Your task to perform on an android device: open chrome privacy settings Image 0: 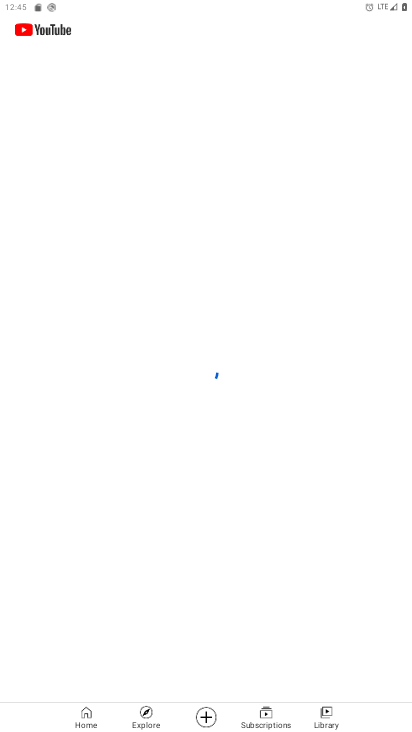
Step 0: press home button
Your task to perform on an android device: open chrome privacy settings Image 1: 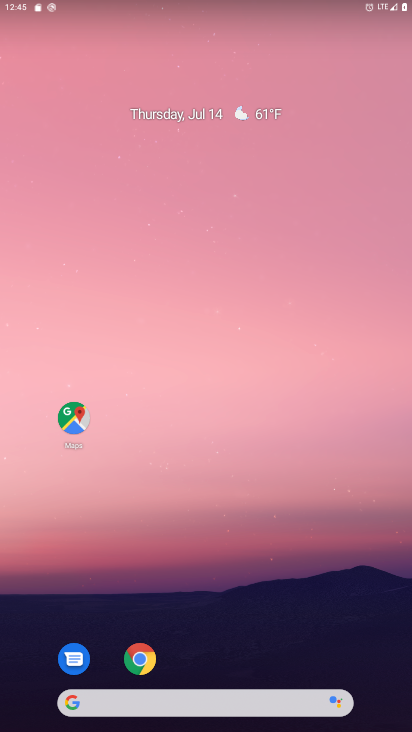
Step 1: drag from (218, 664) to (221, 91)
Your task to perform on an android device: open chrome privacy settings Image 2: 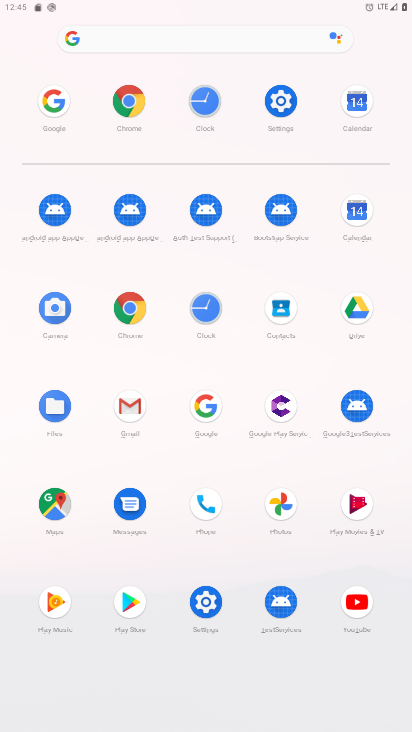
Step 2: click (125, 96)
Your task to perform on an android device: open chrome privacy settings Image 3: 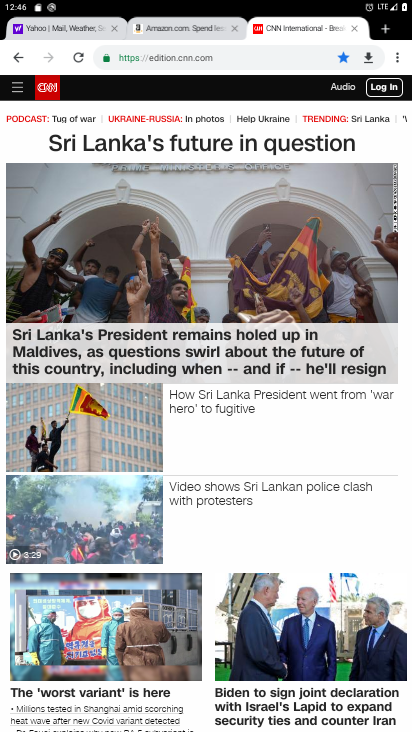
Step 3: click (394, 58)
Your task to perform on an android device: open chrome privacy settings Image 4: 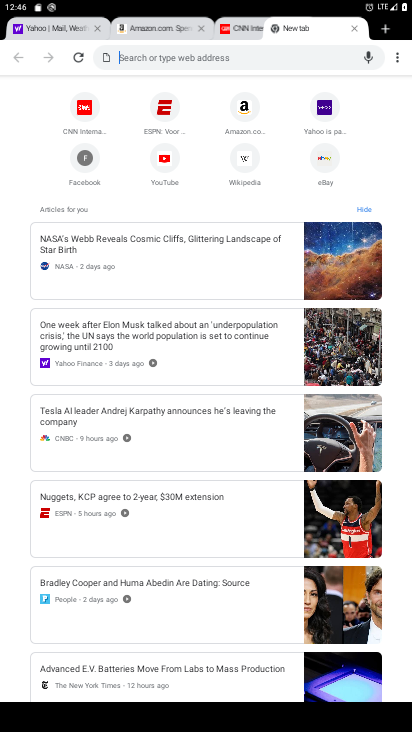
Step 4: click (396, 50)
Your task to perform on an android device: open chrome privacy settings Image 5: 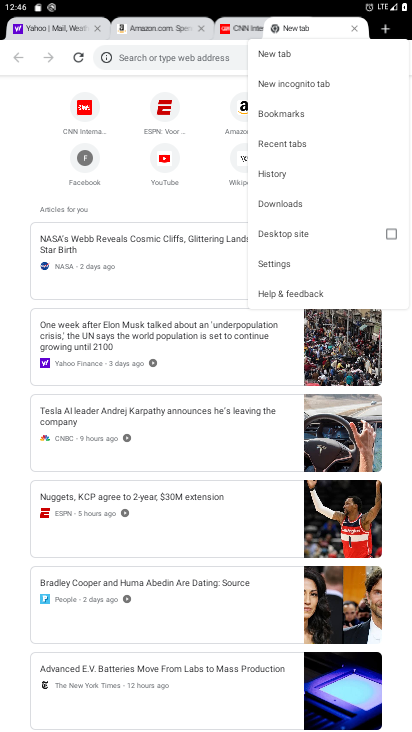
Step 5: click (296, 261)
Your task to perform on an android device: open chrome privacy settings Image 6: 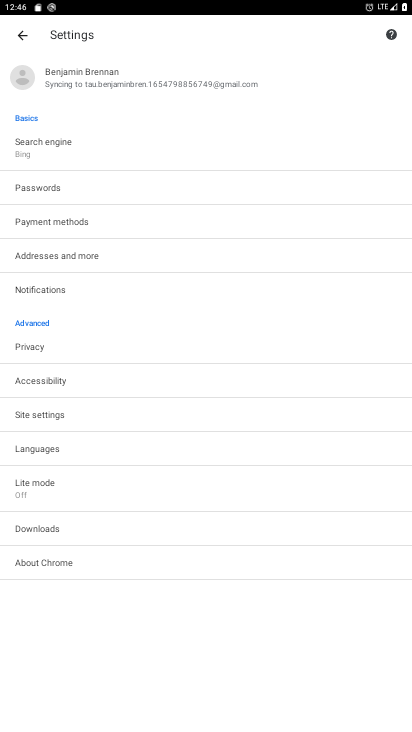
Step 6: click (57, 347)
Your task to perform on an android device: open chrome privacy settings Image 7: 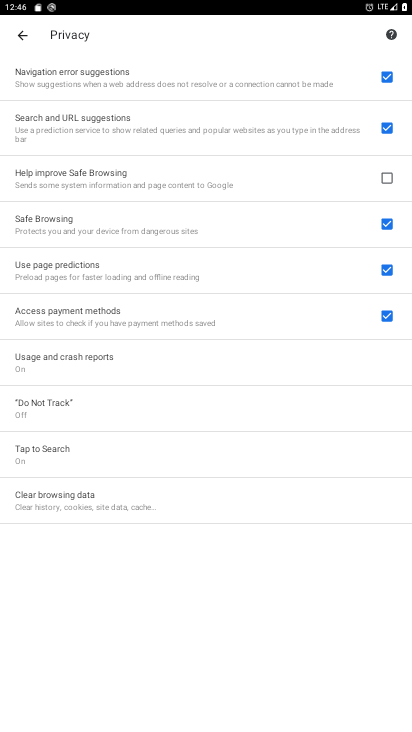
Step 7: task complete